Your task to perform on an android device: open app "DuckDuckGo Privacy Browser" Image 0: 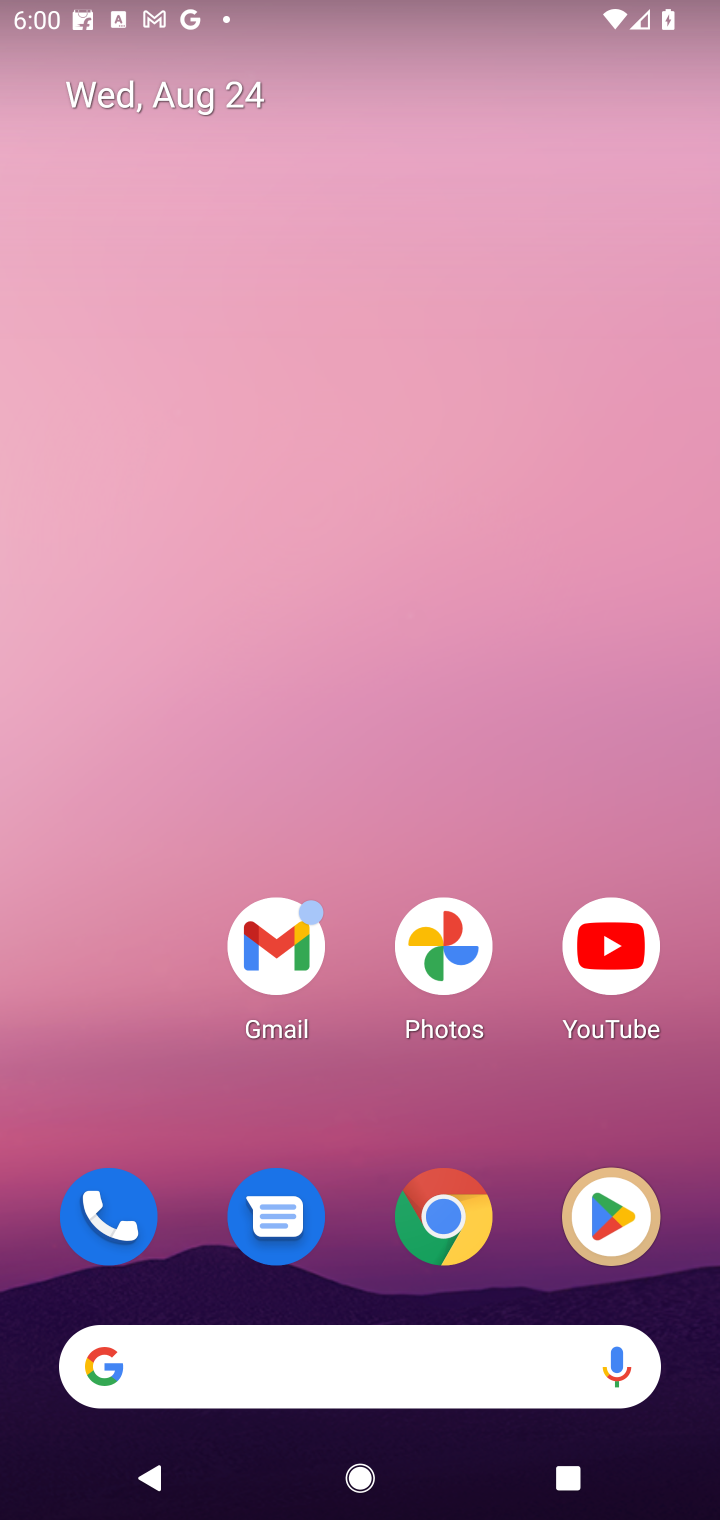
Step 0: click (616, 1209)
Your task to perform on an android device: open app "DuckDuckGo Privacy Browser" Image 1: 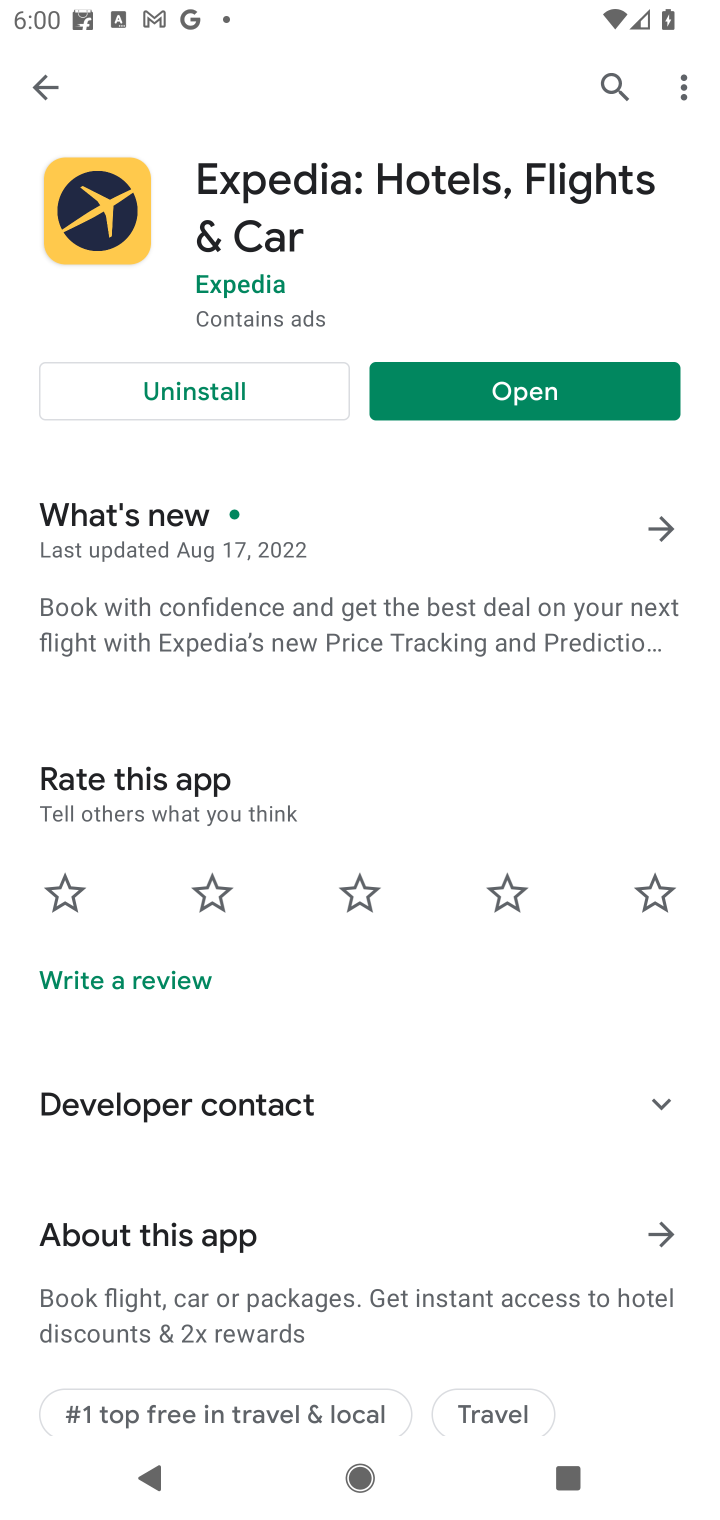
Step 1: click (602, 79)
Your task to perform on an android device: open app "DuckDuckGo Privacy Browser" Image 2: 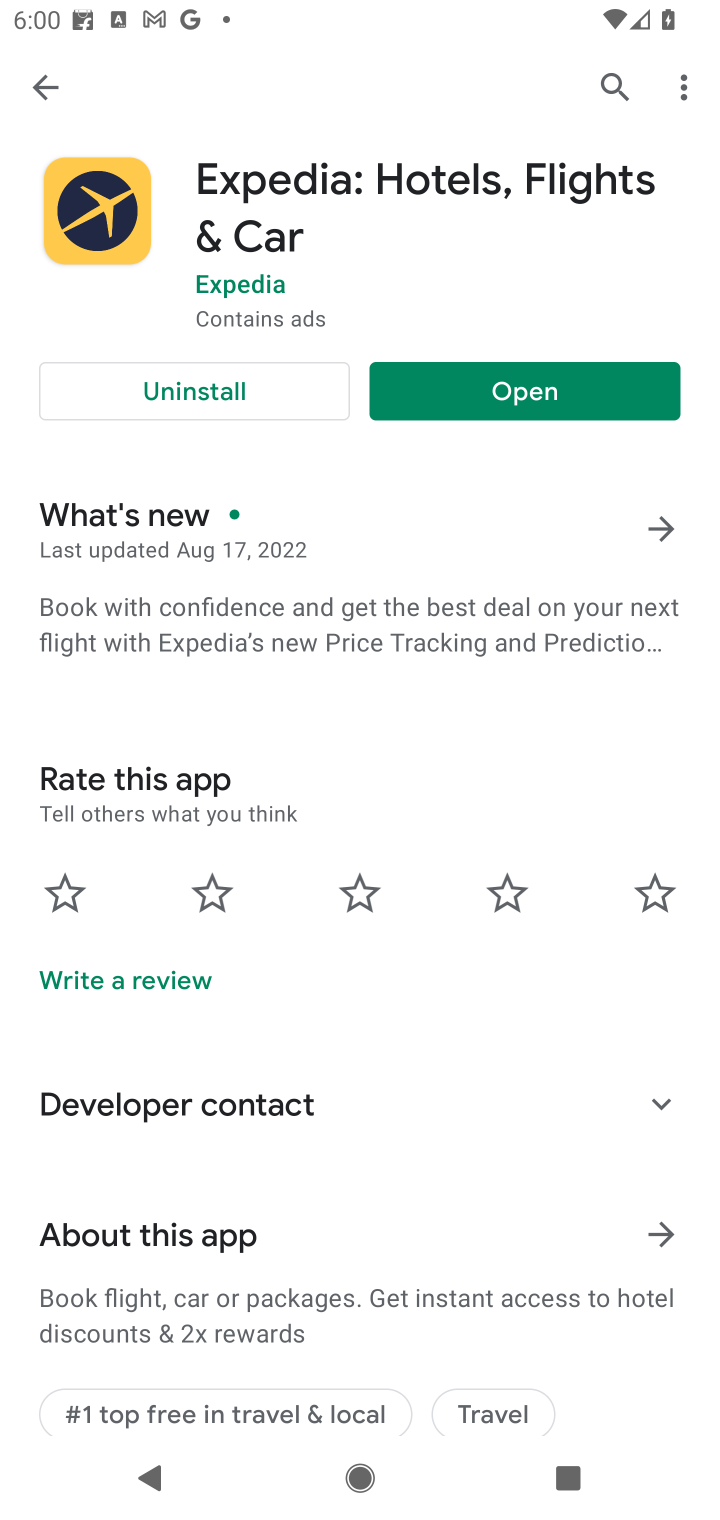
Step 2: click (626, 94)
Your task to perform on an android device: open app "DuckDuckGo Privacy Browser" Image 3: 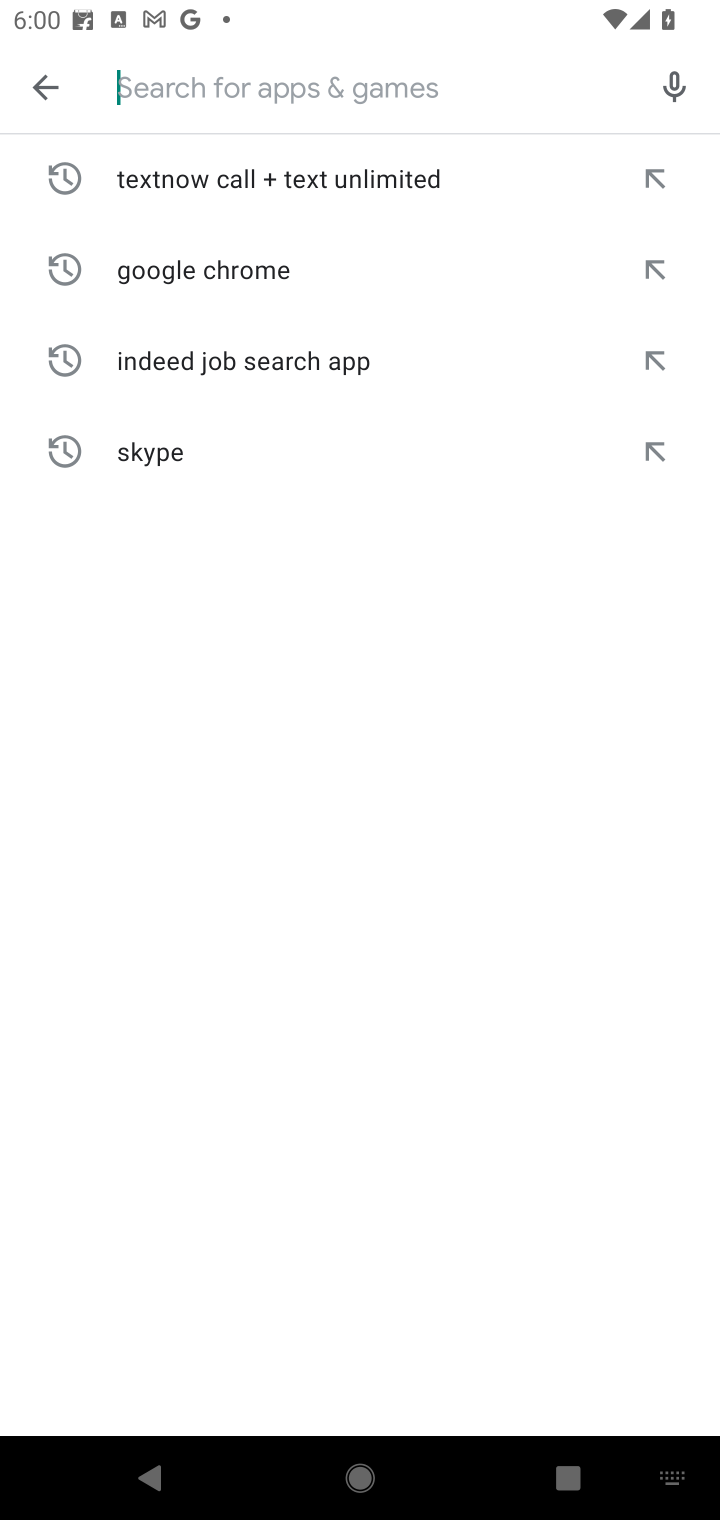
Step 3: type "DuckDuckGo Privacy Browser"
Your task to perform on an android device: open app "DuckDuckGo Privacy Browser" Image 4: 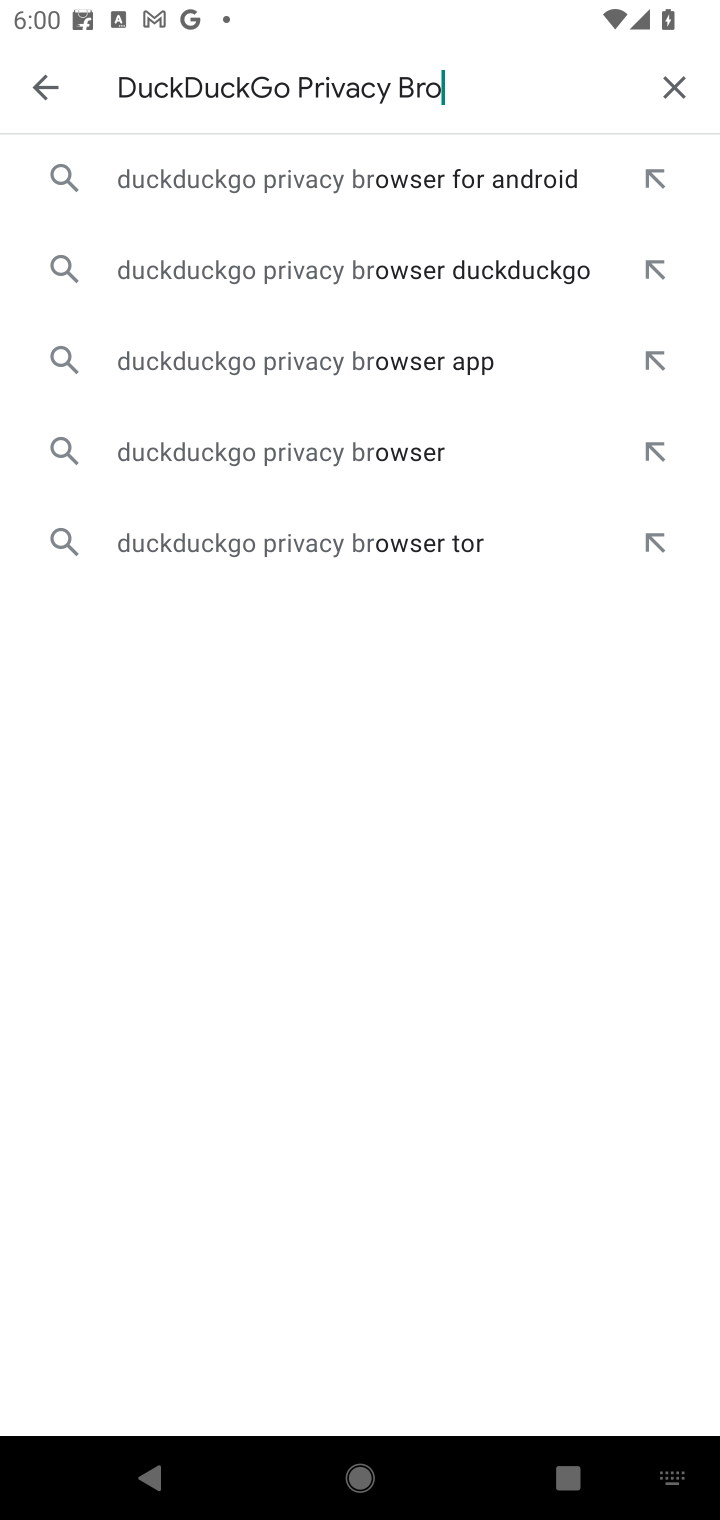
Step 4: type ""
Your task to perform on an android device: open app "DuckDuckGo Privacy Browser" Image 5: 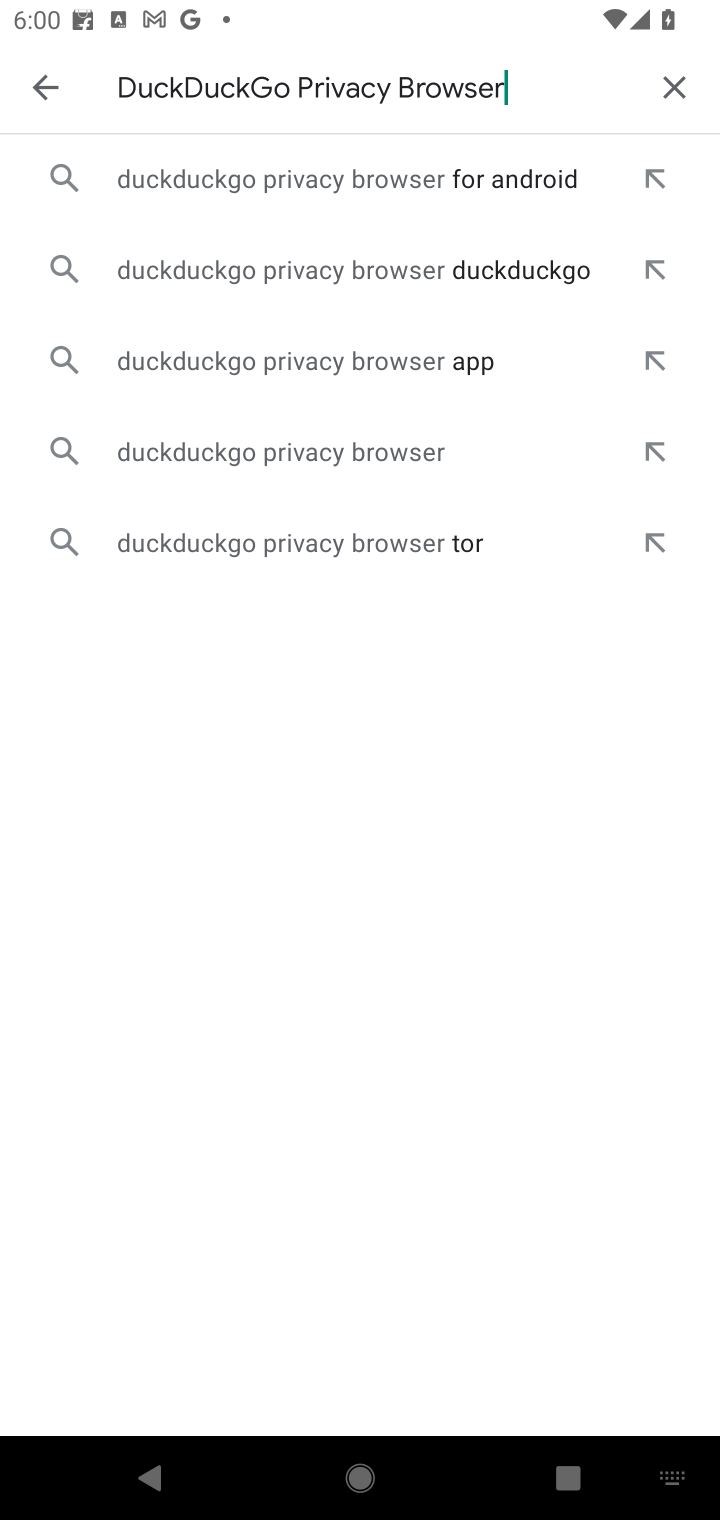
Step 5: click (324, 190)
Your task to perform on an android device: open app "DuckDuckGo Privacy Browser" Image 6: 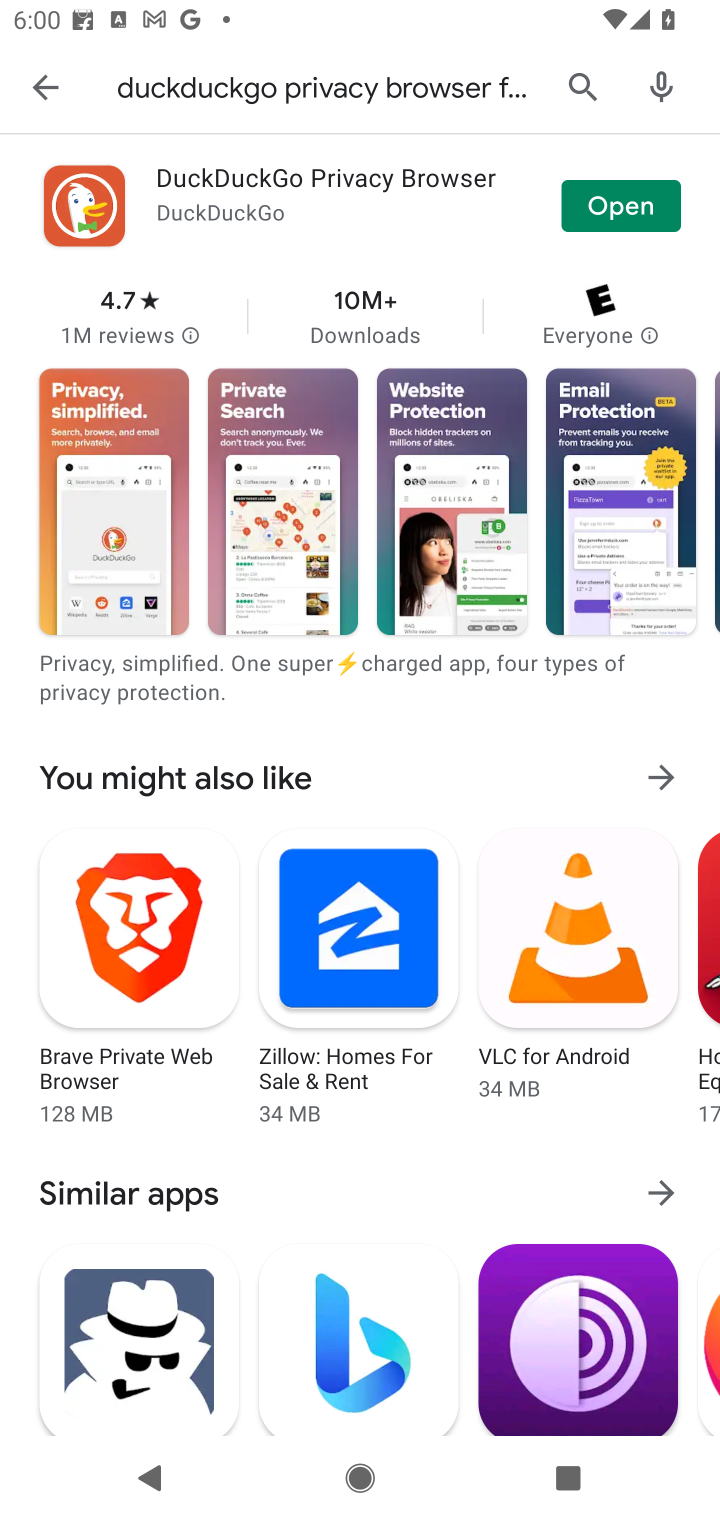
Step 6: click (606, 205)
Your task to perform on an android device: open app "DuckDuckGo Privacy Browser" Image 7: 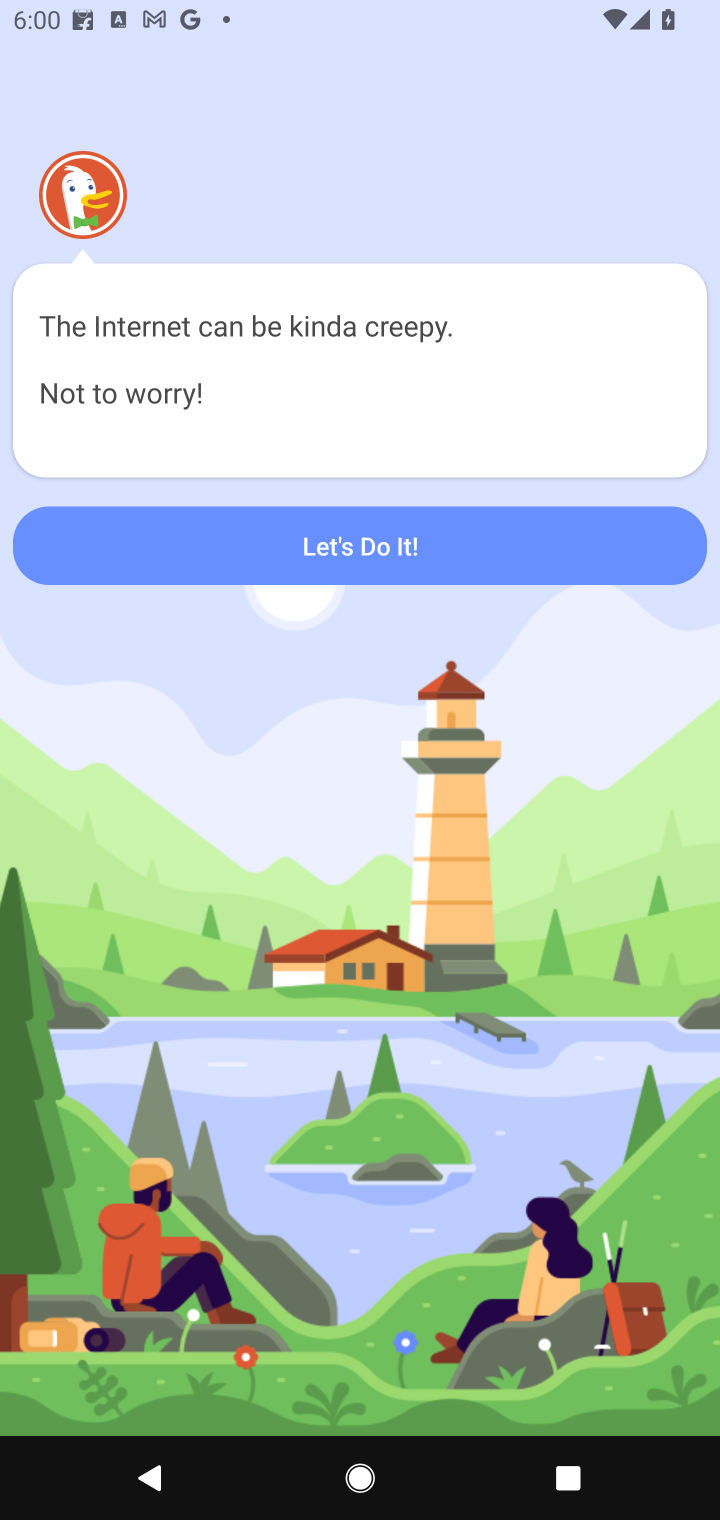
Step 7: task complete